Your task to perform on an android device: Find coffee shops on Maps Image 0: 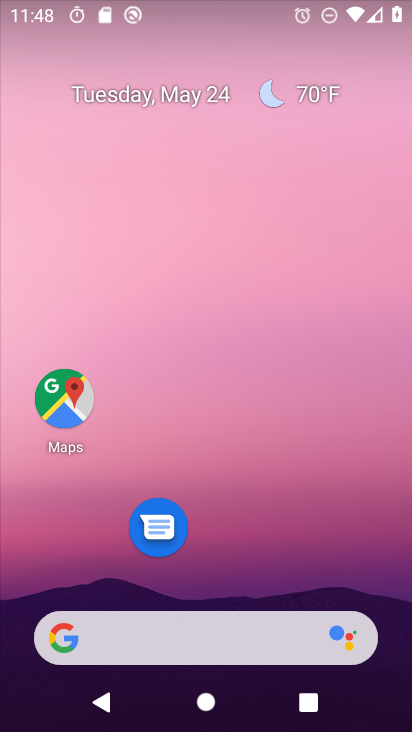
Step 0: click (67, 403)
Your task to perform on an android device: Find coffee shops on Maps Image 1: 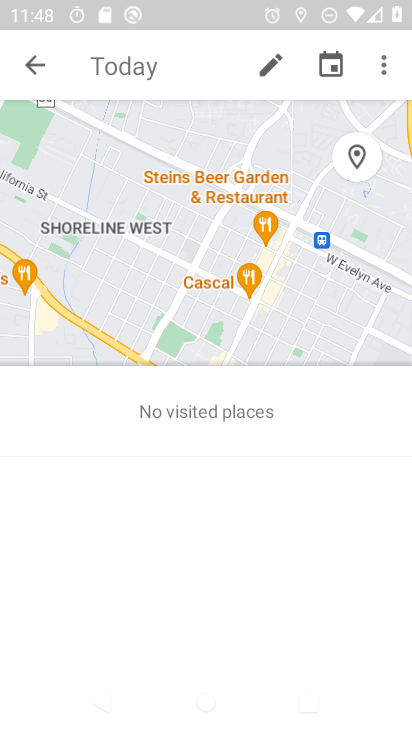
Step 1: press back button
Your task to perform on an android device: Find coffee shops on Maps Image 2: 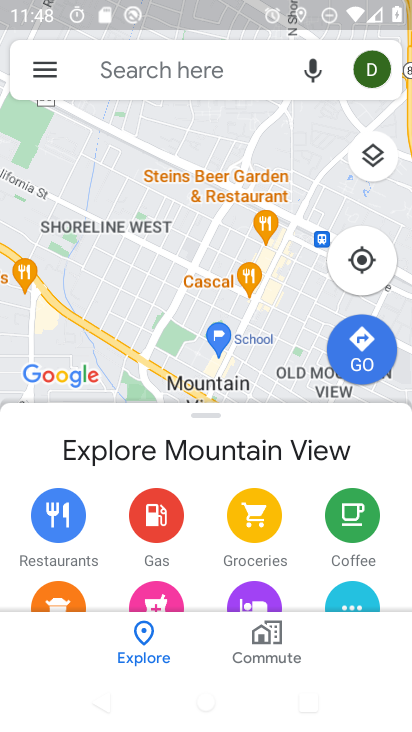
Step 2: click (142, 67)
Your task to perform on an android device: Find coffee shops on Maps Image 3: 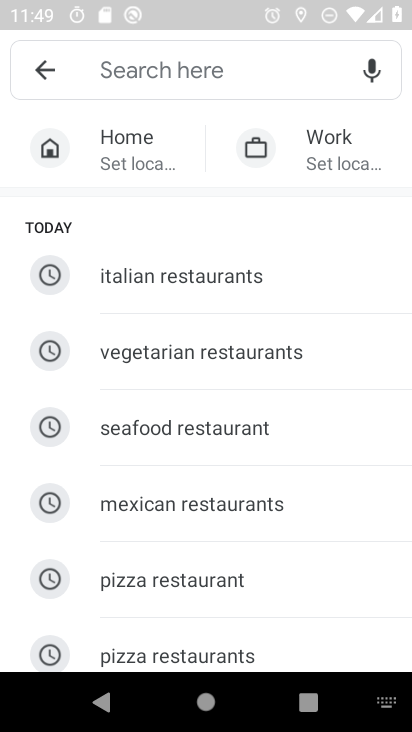
Step 3: type "coffee shop"
Your task to perform on an android device: Find coffee shops on Maps Image 4: 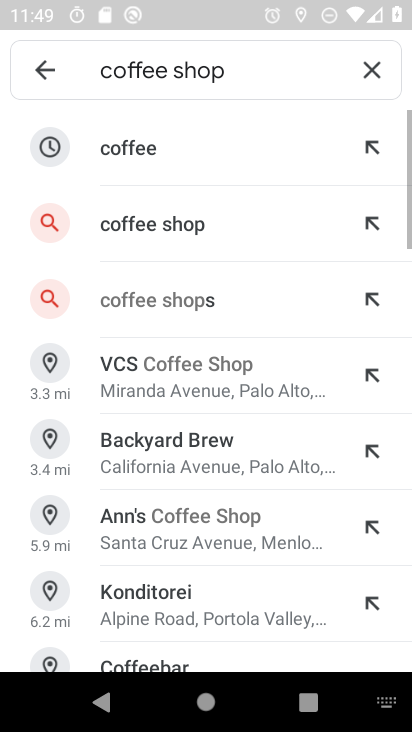
Step 4: click (217, 222)
Your task to perform on an android device: Find coffee shops on Maps Image 5: 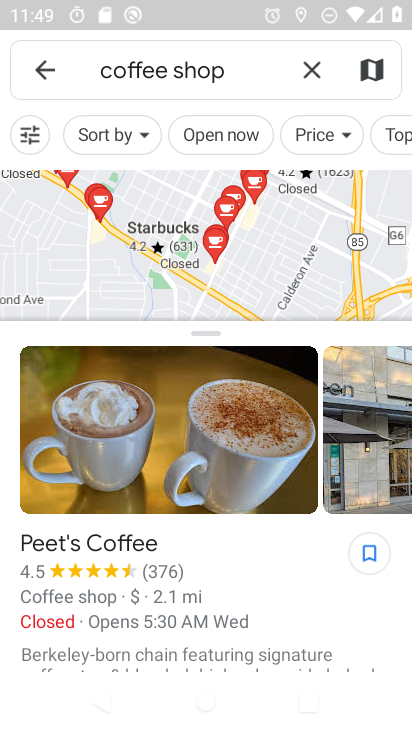
Step 5: task complete